Your task to perform on an android device: Clear the cart on bestbuy.com. Add "asus zenbook" to the cart on bestbuy.com, then select checkout. Image 0: 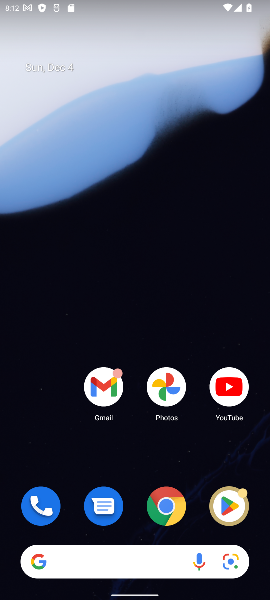
Step 0: click (158, 507)
Your task to perform on an android device: Clear the cart on bestbuy.com. Add "asus zenbook" to the cart on bestbuy.com, then select checkout. Image 1: 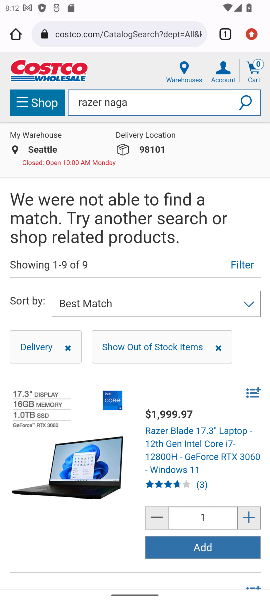
Step 1: click (82, 37)
Your task to perform on an android device: Clear the cart on bestbuy.com. Add "asus zenbook" to the cart on bestbuy.com, then select checkout. Image 2: 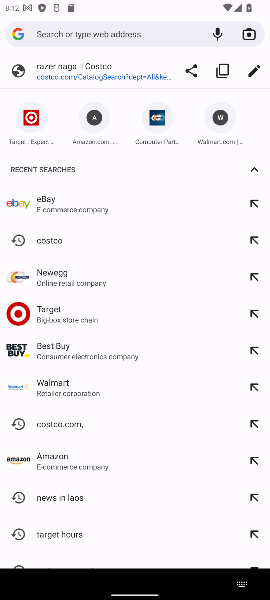
Step 2: click (137, 355)
Your task to perform on an android device: Clear the cart on bestbuy.com. Add "asus zenbook" to the cart on bestbuy.com, then select checkout. Image 3: 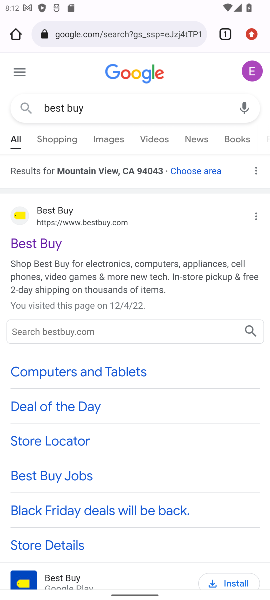
Step 3: click (54, 233)
Your task to perform on an android device: Clear the cart on bestbuy.com. Add "asus zenbook" to the cart on bestbuy.com, then select checkout. Image 4: 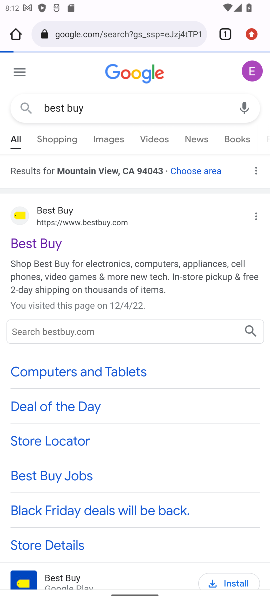
Step 4: click (48, 241)
Your task to perform on an android device: Clear the cart on bestbuy.com. Add "asus zenbook" to the cart on bestbuy.com, then select checkout. Image 5: 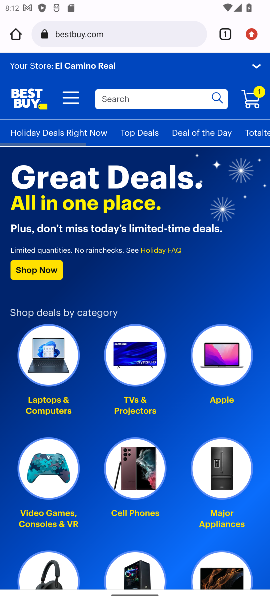
Step 5: click (256, 97)
Your task to perform on an android device: Clear the cart on bestbuy.com. Add "asus zenbook" to the cart on bestbuy.com, then select checkout. Image 6: 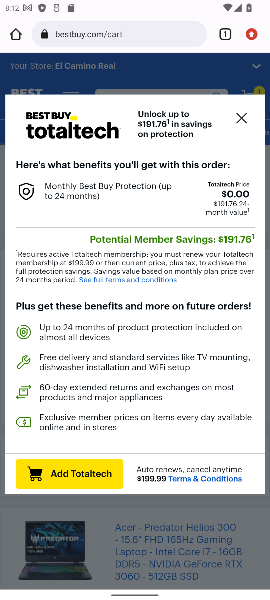
Step 6: click (235, 116)
Your task to perform on an android device: Clear the cart on bestbuy.com. Add "asus zenbook" to the cart on bestbuy.com, then select checkout. Image 7: 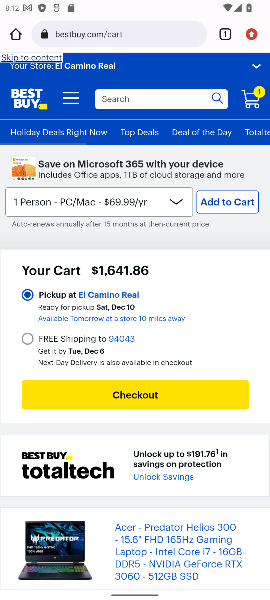
Step 7: drag from (95, 499) to (91, 192)
Your task to perform on an android device: Clear the cart on bestbuy.com. Add "asus zenbook" to the cart on bestbuy.com, then select checkout. Image 8: 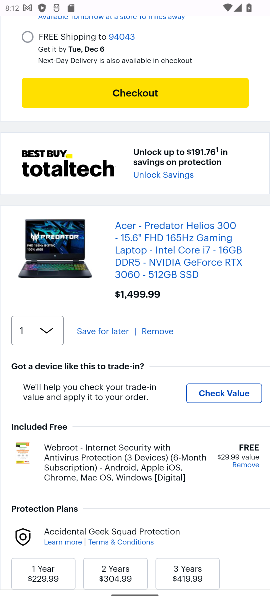
Step 8: click (156, 332)
Your task to perform on an android device: Clear the cart on bestbuy.com. Add "asus zenbook" to the cart on bestbuy.com, then select checkout. Image 9: 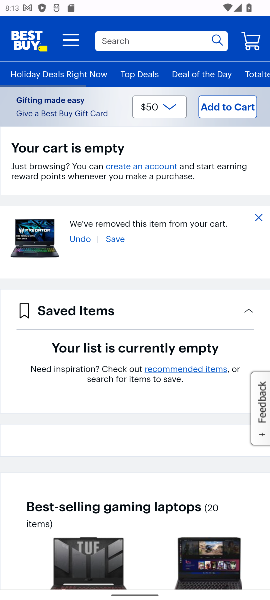
Step 9: click (170, 38)
Your task to perform on an android device: Clear the cart on bestbuy.com. Add "asus zenbook" to the cart on bestbuy.com, then select checkout. Image 10: 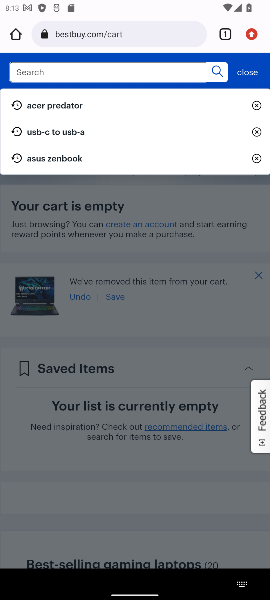
Step 10: type "asus zenbook"
Your task to perform on an android device: Clear the cart on bestbuy.com. Add "asus zenbook" to the cart on bestbuy.com, then select checkout. Image 11: 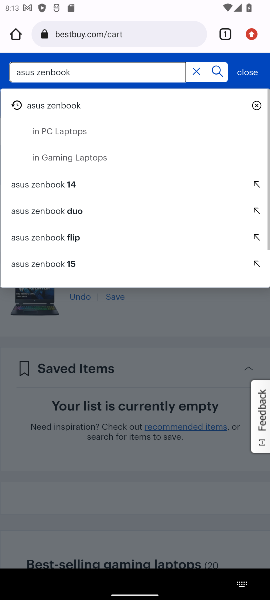
Step 11: click (217, 72)
Your task to perform on an android device: Clear the cart on bestbuy.com. Add "asus zenbook" to the cart on bestbuy.com, then select checkout. Image 12: 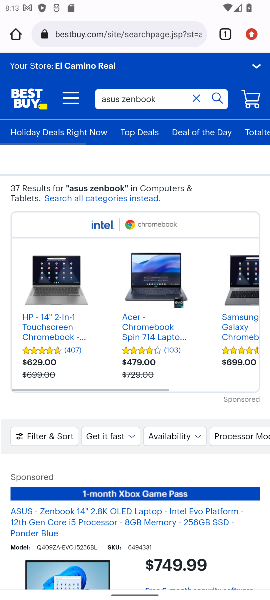
Step 12: drag from (160, 541) to (158, 243)
Your task to perform on an android device: Clear the cart on bestbuy.com. Add "asus zenbook" to the cart on bestbuy.com, then select checkout. Image 13: 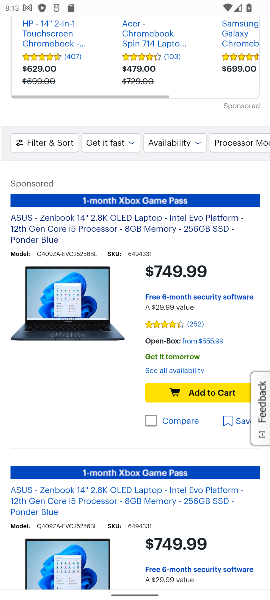
Step 13: click (210, 394)
Your task to perform on an android device: Clear the cart on bestbuy.com. Add "asus zenbook" to the cart on bestbuy.com, then select checkout. Image 14: 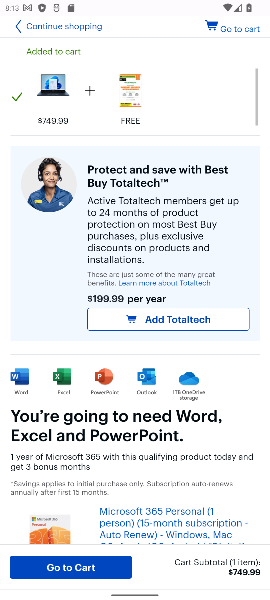
Step 14: click (112, 560)
Your task to perform on an android device: Clear the cart on bestbuy.com. Add "asus zenbook" to the cart on bestbuy.com, then select checkout. Image 15: 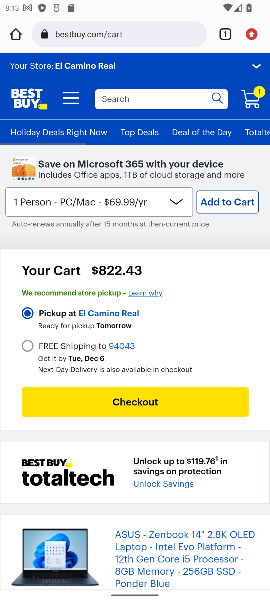
Step 15: click (175, 404)
Your task to perform on an android device: Clear the cart on bestbuy.com. Add "asus zenbook" to the cart on bestbuy.com, then select checkout. Image 16: 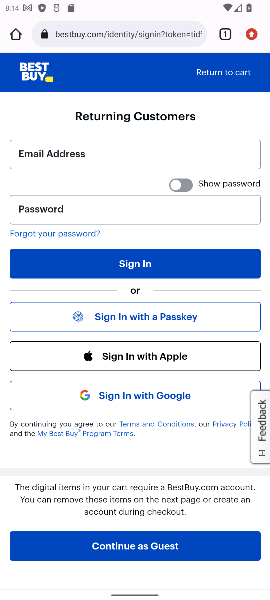
Step 16: task complete